Your task to perform on an android device: Search for seafood restaurants on Google Maps Image 0: 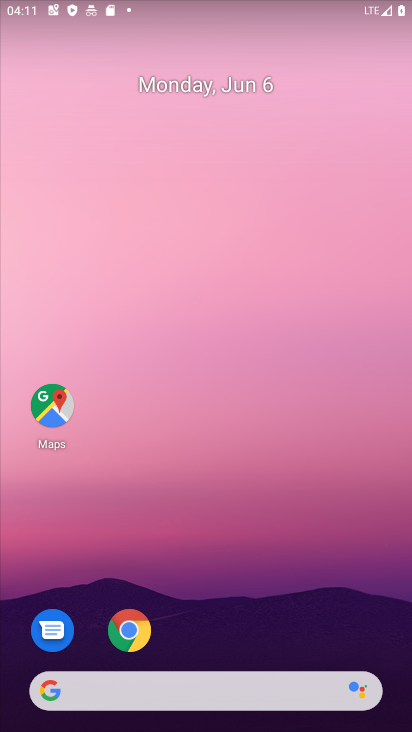
Step 0: press home button
Your task to perform on an android device: Search for seafood restaurants on Google Maps Image 1: 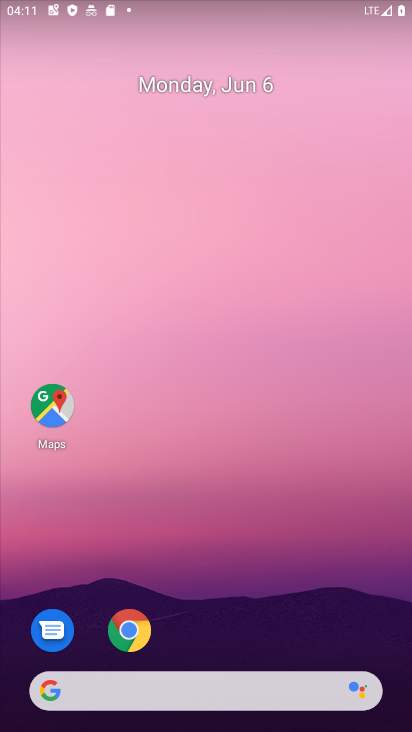
Step 1: drag from (266, 639) to (65, 705)
Your task to perform on an android device: Search for seafood restaurants on Google Maps Image 2: 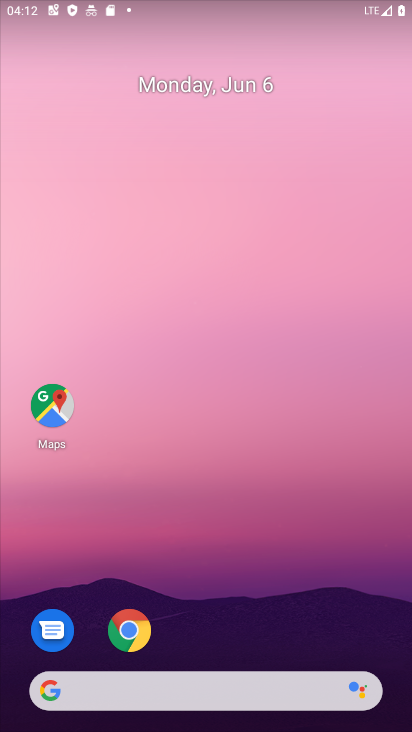
Step 2: click (71, 393)
Your task to perform on an android device: Search for seafood restaurants on Google Maps Image 3: 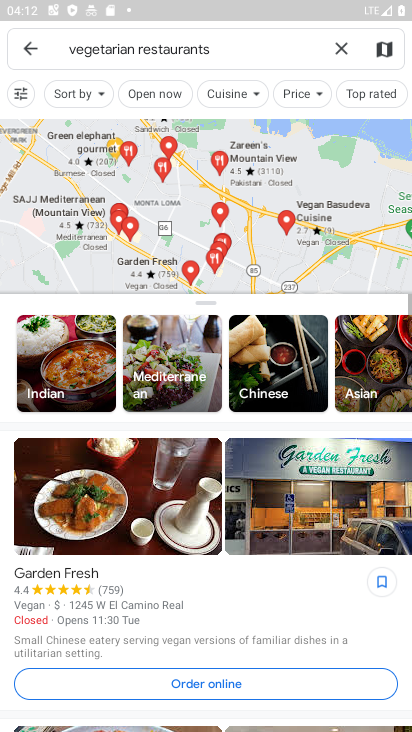
Step 3: click (341, 50)
Your task to perform on an android device: Search for seafood restaurants on Google Maps Image 4: 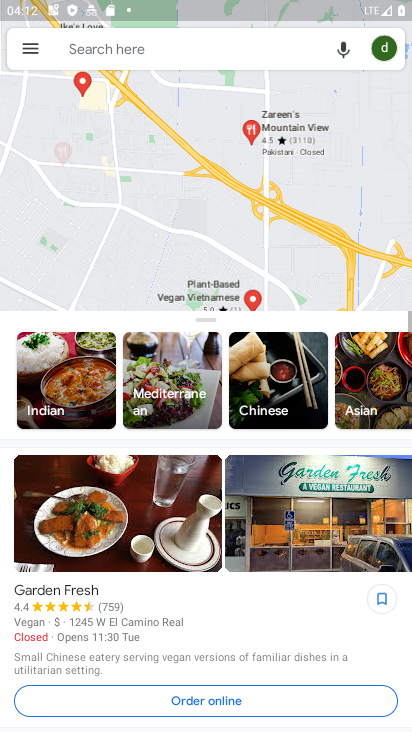
Step 4: click (218, 46)
Your task to perform on an android device: Search for seafood restaurants on Google Maps Image 5: 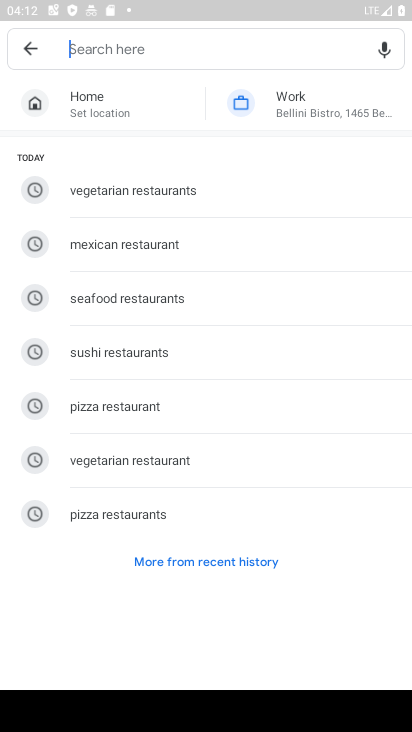
Step 5: type " seafood restaurants "
Your task to perform on an android device: Search for seafood restaurants on Google Maps Image 6: 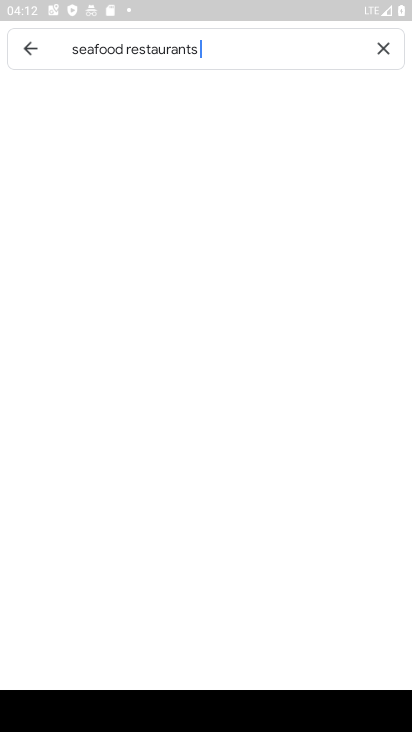
Step 6: type ""
Your task to perform on an android device: Search for seafood restaurants on Google Maps Image 7: 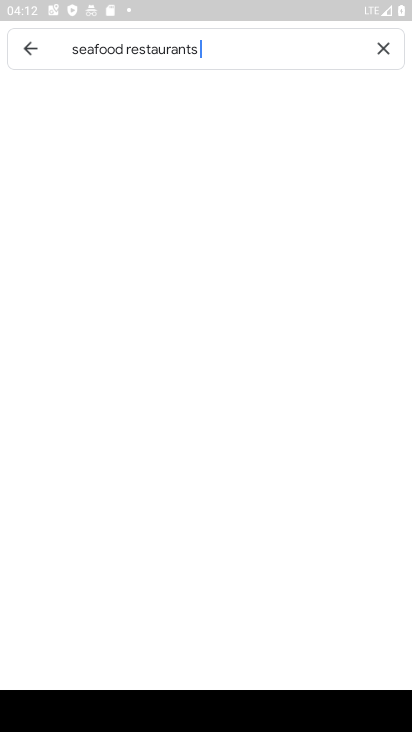
Step 7: click (128, 118)
Your task to perform on an android device: Search for seafood restaurants on Google Maps Image 8: 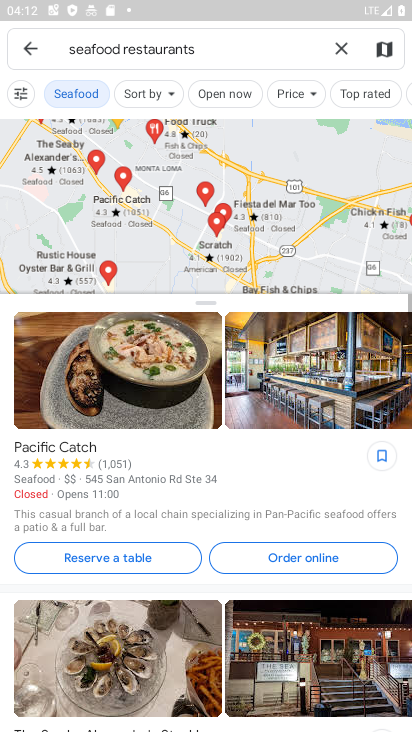
Step 8: task complete